Your task to perform on an android device: Go to network settings Image 0: 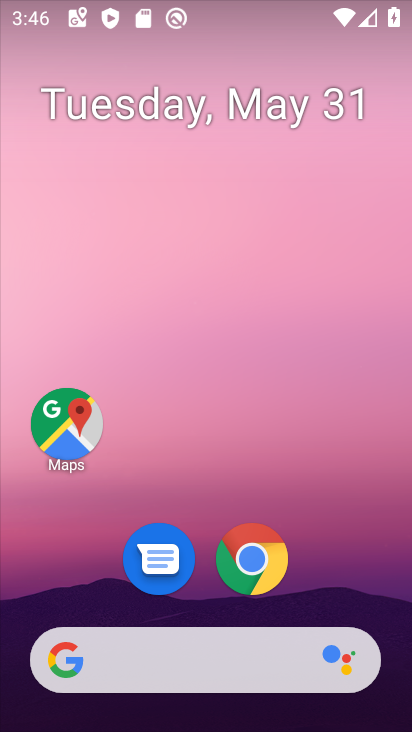
Step 0: drag from (215, 641) to (211, 263)
Your task to perform on an android device: Go to network settings Image 1: 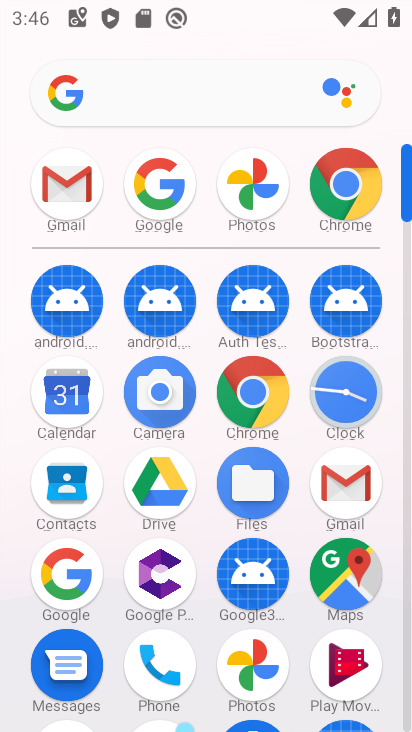
Step 1: drag from (209, 612) to (209, 308)
Your task to perform on an android device: Go to network settings Image 2: 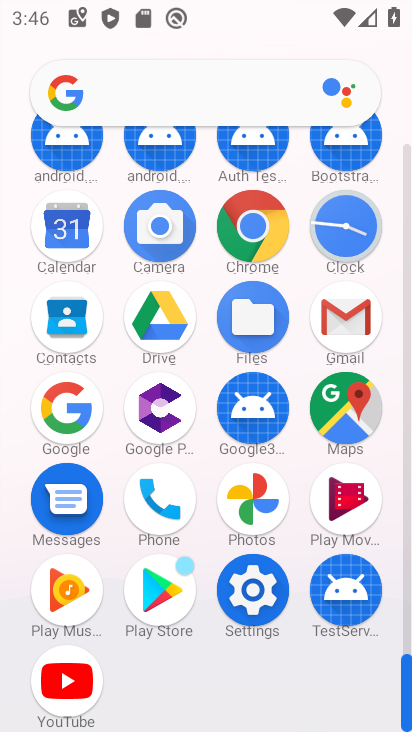
Step 2: click (251, 584)
Your task to perform on an android device: Go to network settings Image 3: 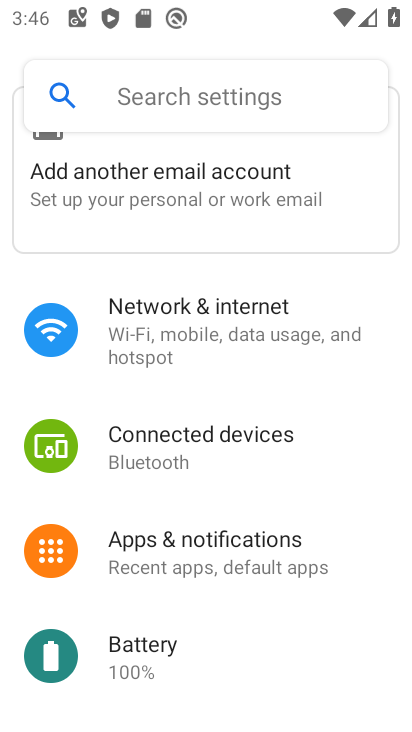
Step 3: click (152, 316)
Your task to perform on an android device: Go to network settings Image 4: 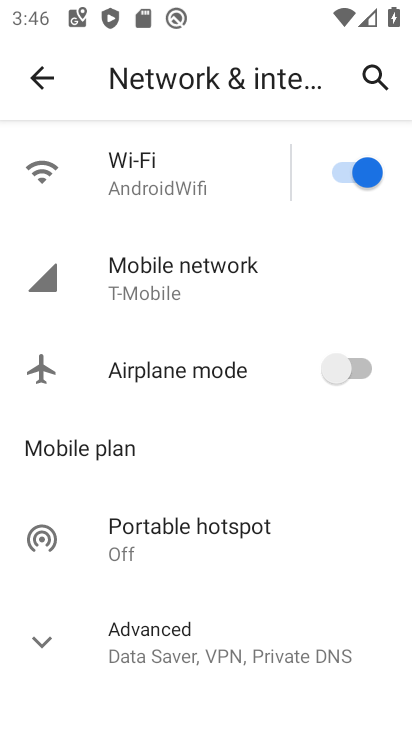
Step 4: click (134, 274)
Your task to perform on an android device: Go to network settings Image 5: 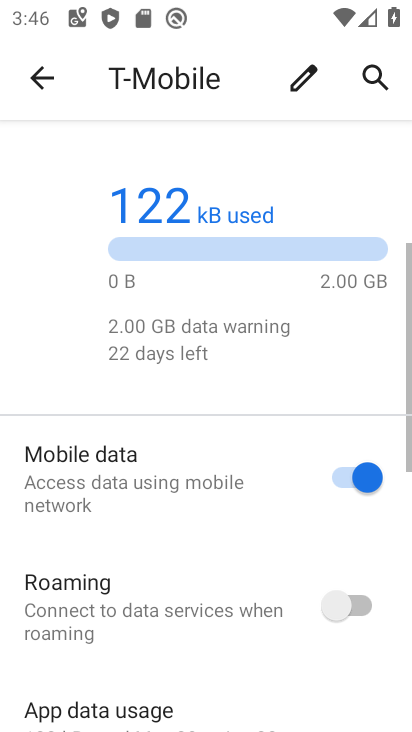
Step 5: task complete